Your task to perform on an android device: create a new album in the google photos Image 0: 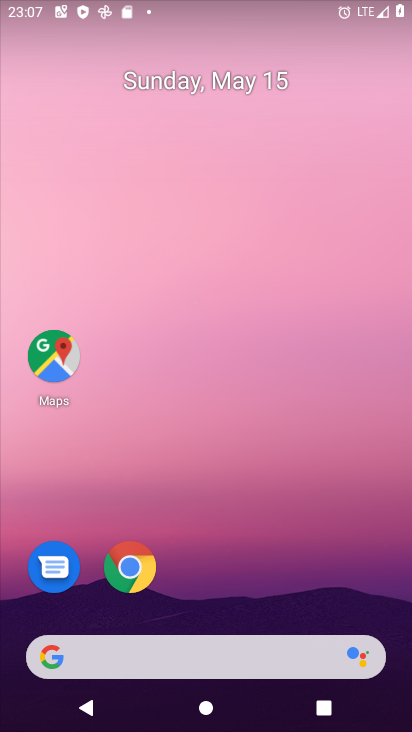
Step 0: drag from (264, 708) to (276, 124)
Your task to perform on an android device: create a new album in the google photos Image 1: 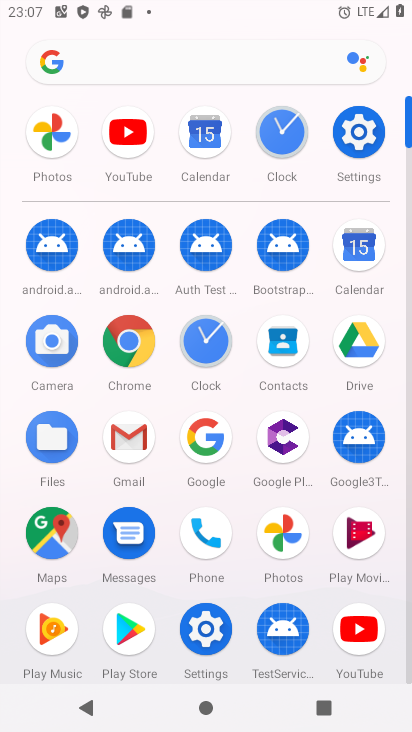
Step 1: click (291, 542)
Your task to perform on an android device: create a new album in the google photos Image 2: 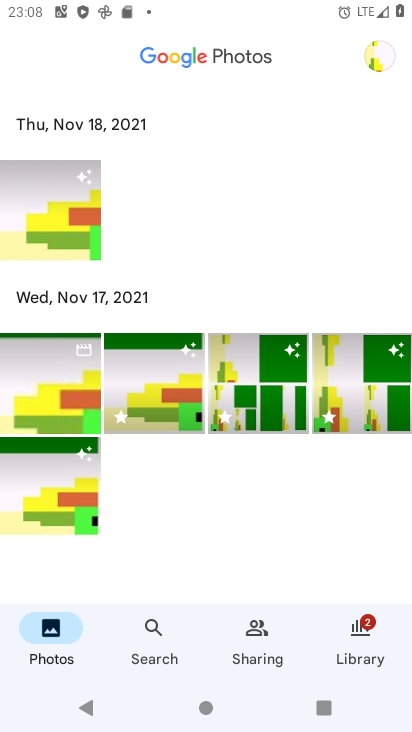
Step 2: click (69, 228)
Your task to perform on an android device: create a new album in the google photos Image 3: 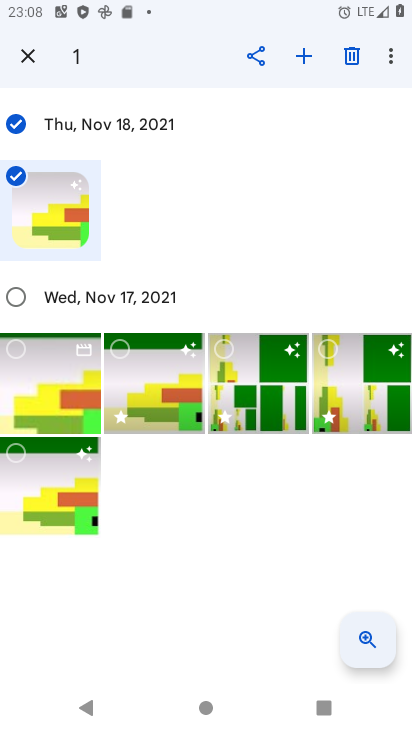
Step 3: click (308, 59)
Your task to perform on an android device: create a new album in the google photos Image 4: 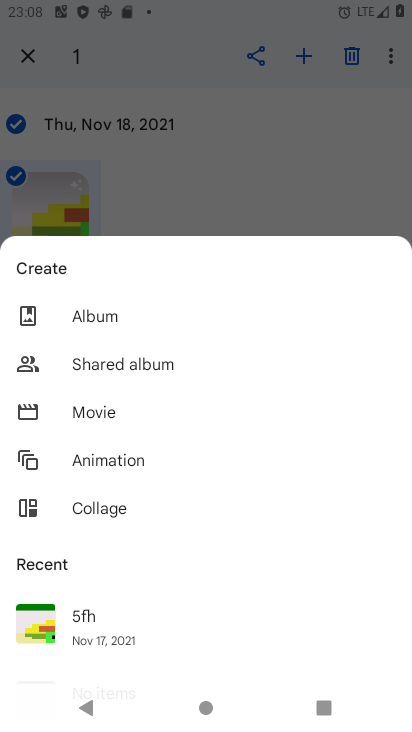
Step 4: click (105, 313)
Your task to perform on an android device: create a new album in the google photos Image 5: 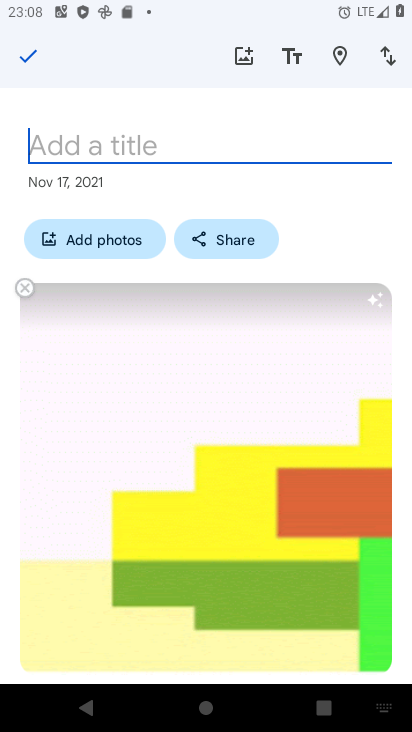
Step 5: type "hvkm"
Your task to perform on an android device: create a new album in the google photos Image 6: 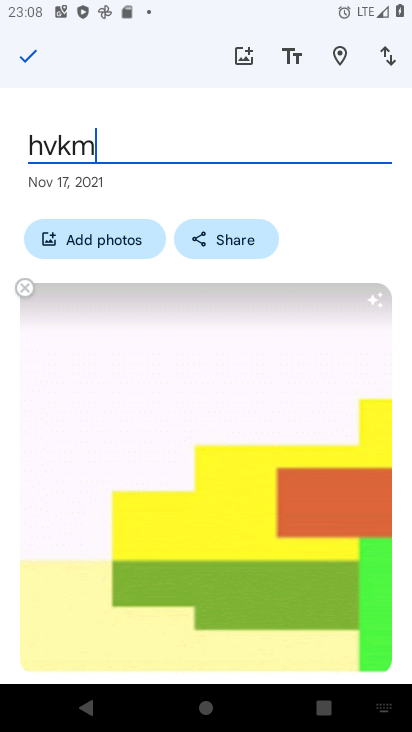
Step 6: click (28, 54)
Your task to perform on an android device: create a new album in the google photos Image 7: 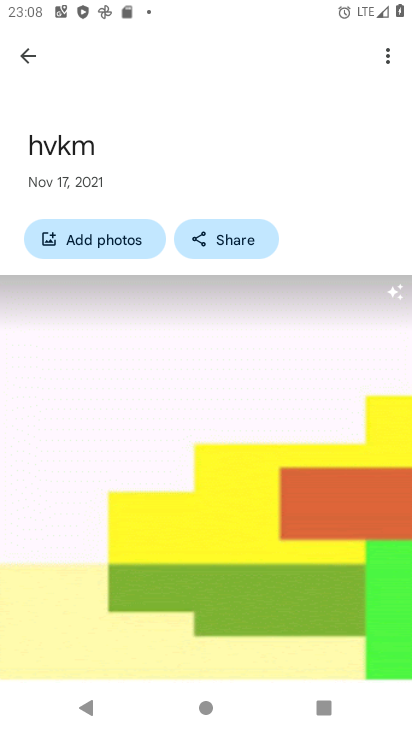
Step 7: task complete